Your task to perform on an android device: Set the phone to "Do not disturb". Image 0: 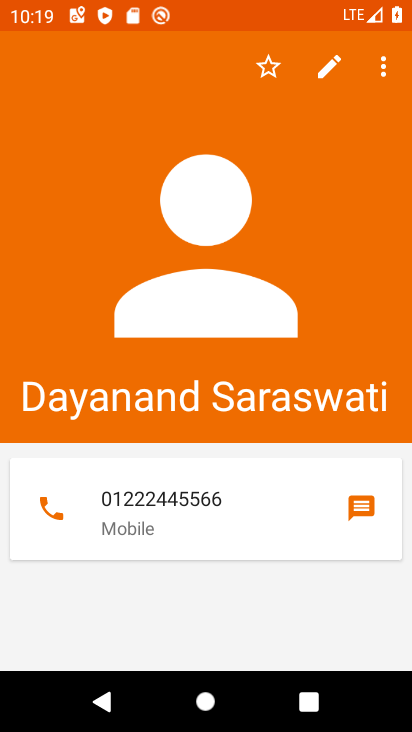
Step 0: press home button
Your task to perform on an android device: Set the phone to "Do not disturb". Image 1: 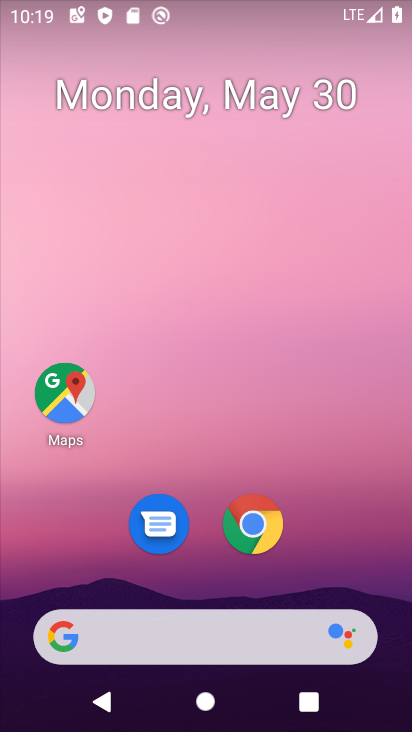
Step 1: drag from (327, 535) to (301, 20)
Your task to perform on an android device: Set the phone to "Do not disturb". Image 2: 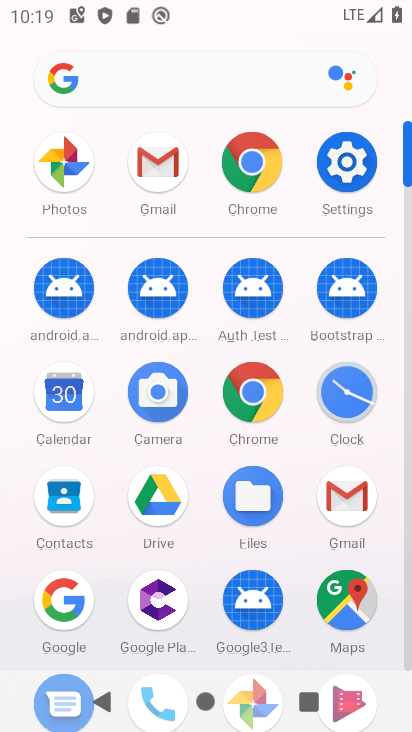
Step 2: click (349, 152)
Your task to perform on an android device: Set the phone to "Do not disturb". Image 3: 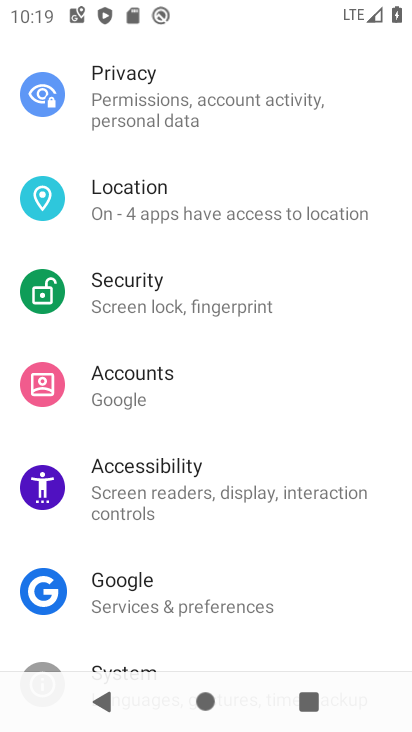
Step 3: drag from (307, 180) to (272, 637)
Your task to perform on an android device: Set the phone to "Do not disturb". Image 4: 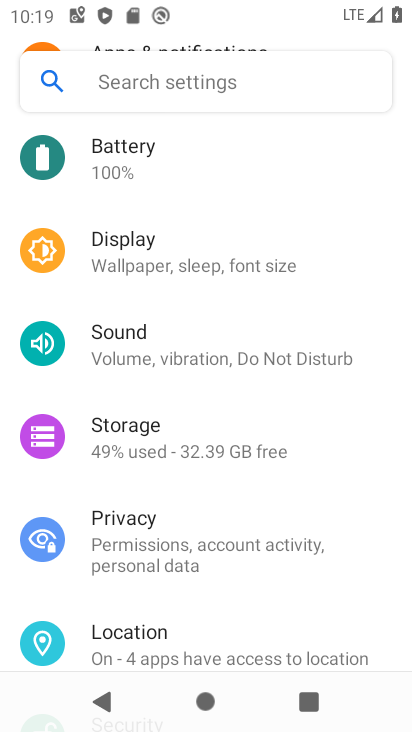
Step 4: click (245, 343)
Your task to perform on an android device: Set the phone to "Do not disturb". Image 5: 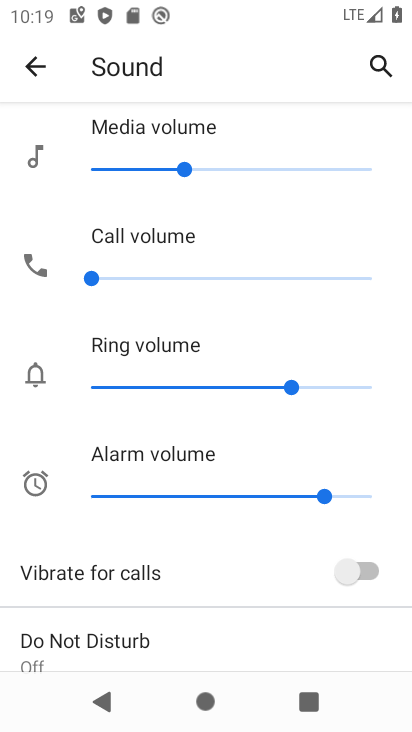
Step 5: click (108, 635)
Your task to perform on an android device: Set the phone to "Do not disturb". Image 6: 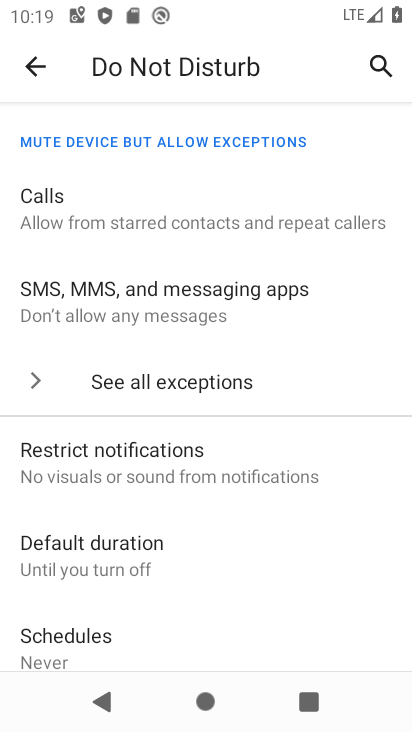
Step 6: drag from (285, 534) to (306, 366)
Your task to perform on an android device: Set the phone to "Do not disturb". Image 7: 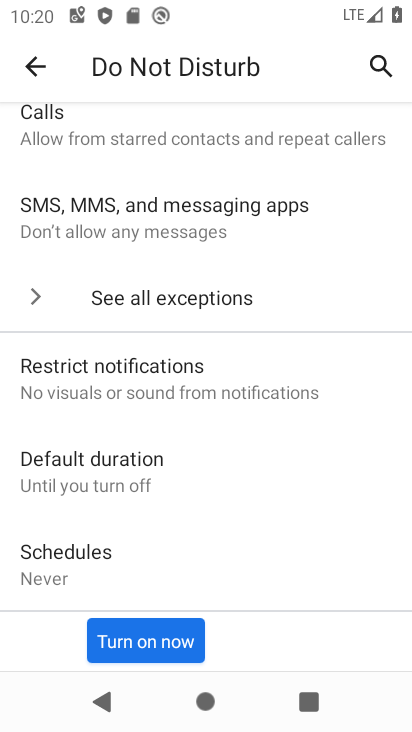
Step 7: click (174, 646)
Your task to perform on an android device: Set the phone to "Do not disturb". Image 8: 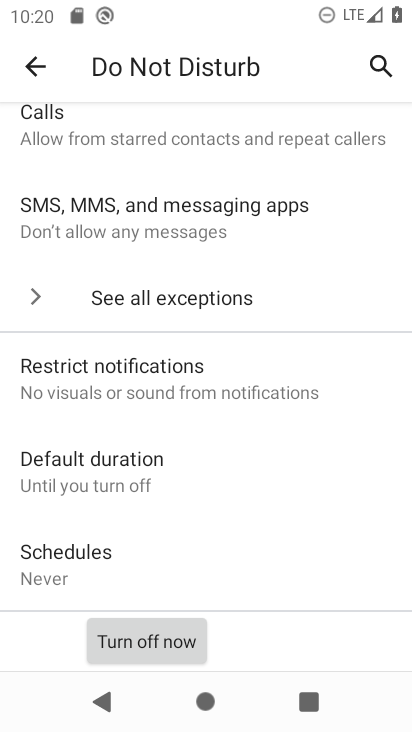
Step 8: task complete